Your task to perform on an android device: allow notifications from all sites in the chrome app Image 0: 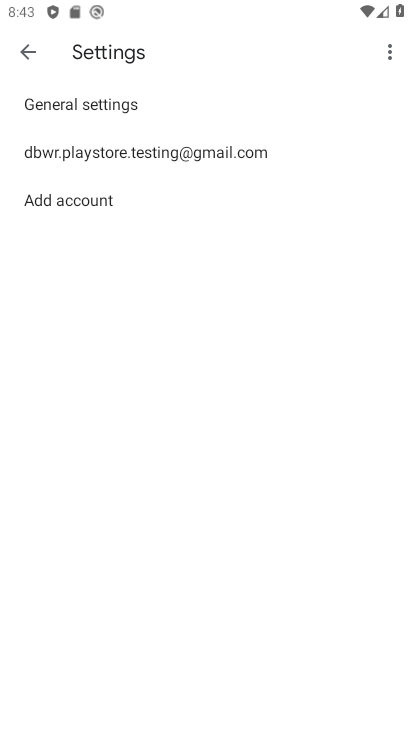
Step 0: press home button
Your task to perform on an android device: allow notifications from all sites in the chrome app Image 1: 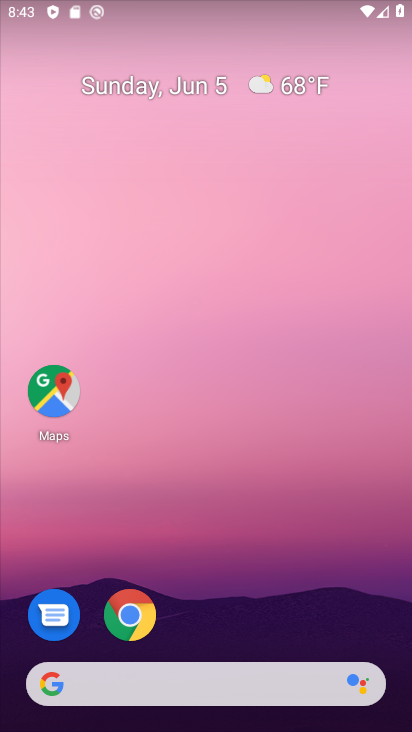
Step 1: click (143, 622)
Your task to perform on an android device: allow notifications from all sites in the chrome app Image 2: 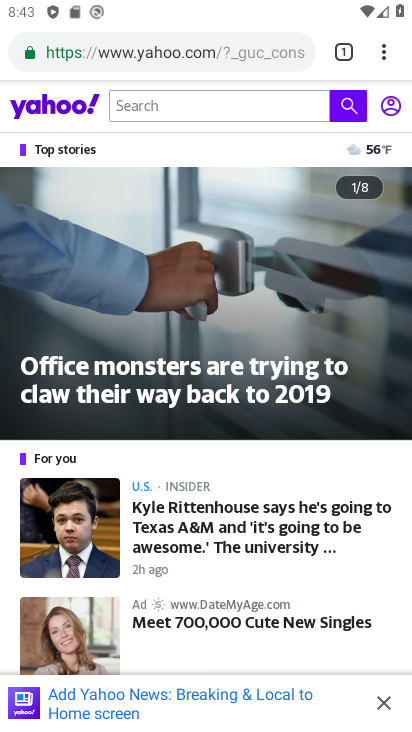
Step 2: click (384, 35)
Your task to perform on an android device: allow notifications from all sites in the chrome app Image 3: 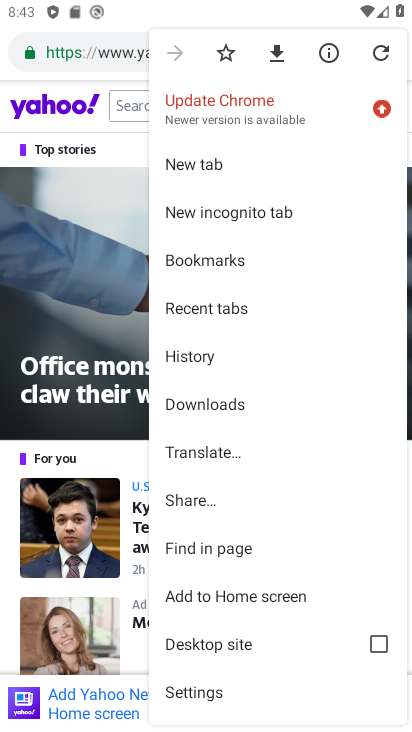
Step 3: click (199, 694)
Your task to perform on an android device: allow notifications from all sites in the chrome app Image 4: 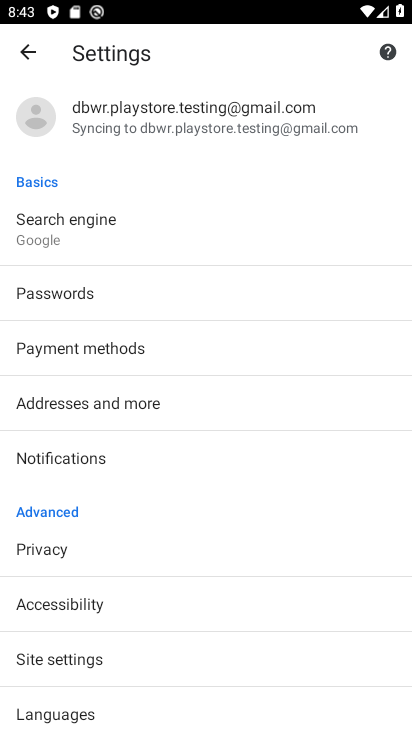
Step 4: click (117, 663)
Your task to perform on an android device: allow notifications from all sites in the chrome app Image 5: 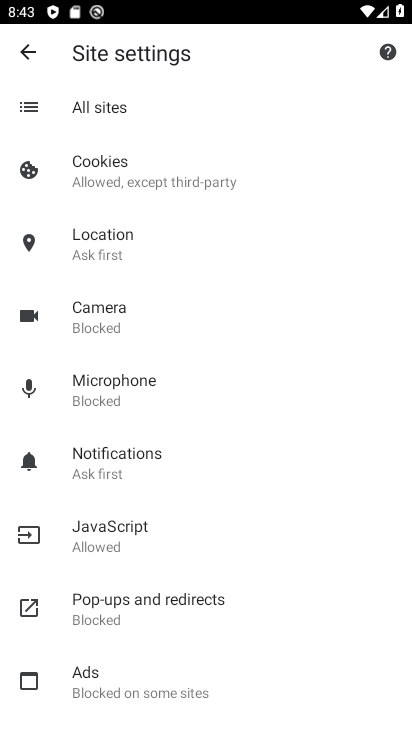
Step 5: click (122, 453)
Your task to perform on an android device: allow notifications from all sites in the chrome app Image 6: 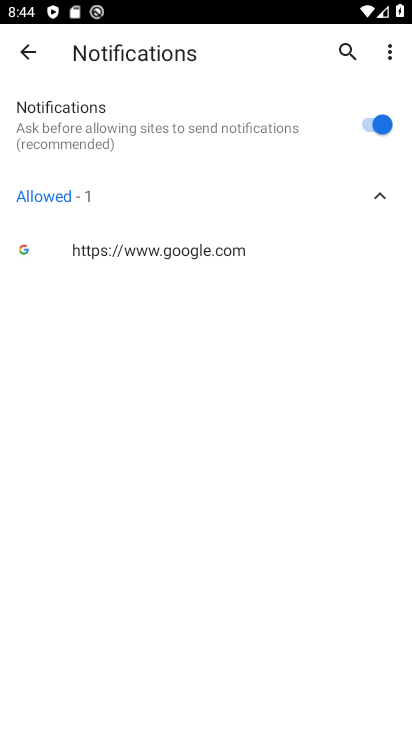
Step 6: click (387, 40)
Your task to perform on an android device: allow notifications from all sites in the chrome app Image 7: 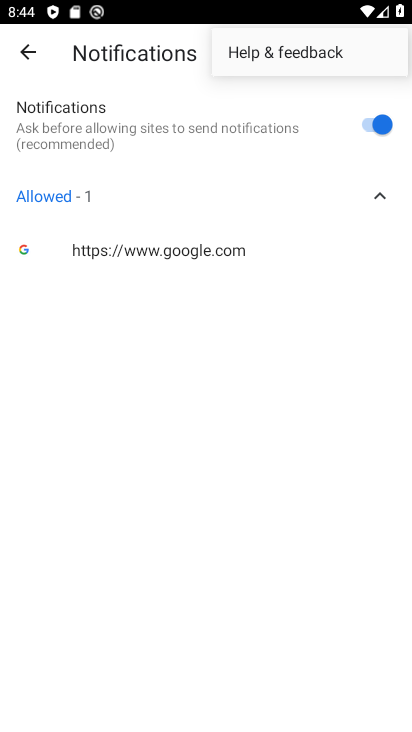
Step 7: click (319, 348)
Your task to perform on an android device: allow notifications from all sites in the chrome app Image 8: 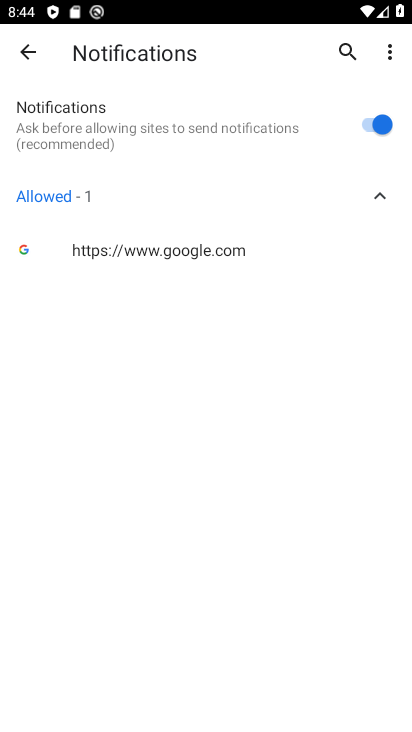
Step 8: click (389, 125)
Your task to perform on an android device: allow notifications from all sites in the chrome app Image 9: 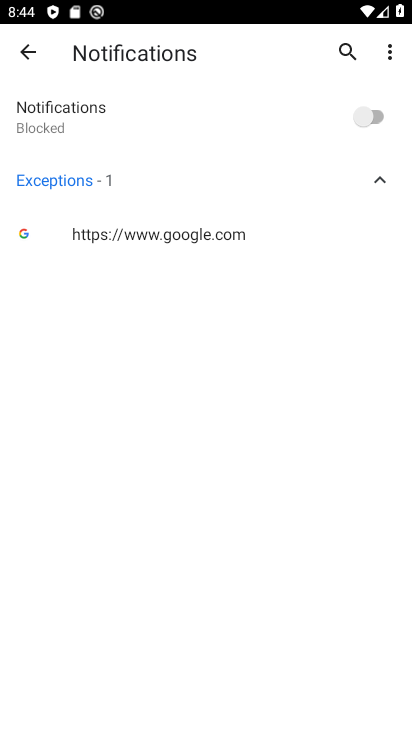
Step 9: task complete